Your task to perform on an android device: clear all cookies in the chrome app Image 0: 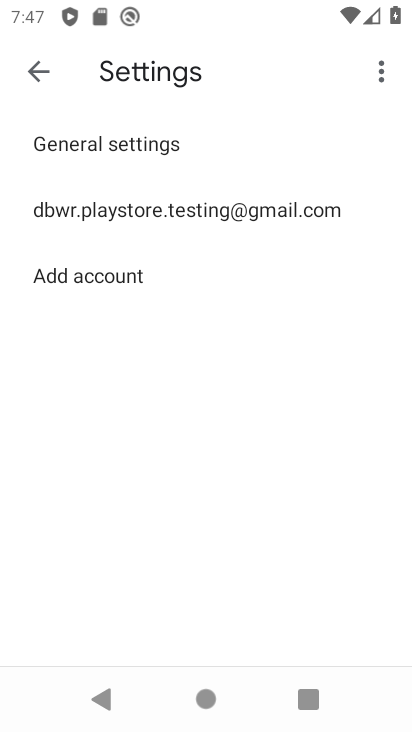
Step 0: click (30, 70)
Your task to perform on an android device: clear all cookies in the chrome app Image 1: 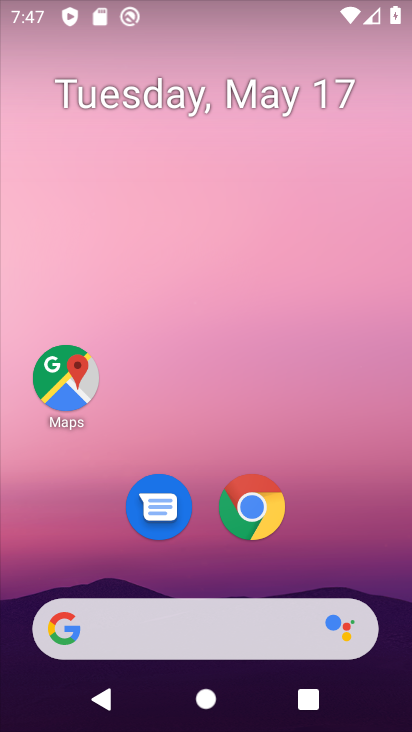
Step 1: drag from (125, 231) to (74, 82)
Your task to perform on an android device: clear all cookies in the chrome app Image 2: 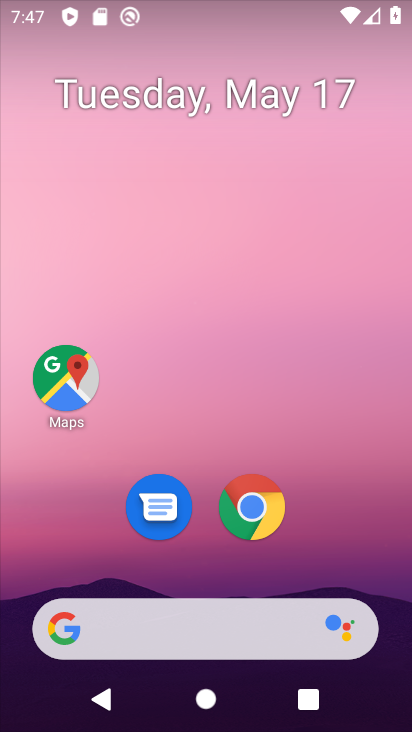
Step 2: drag from (248, 553) to (203, 148)
Your task to perform on an android device: clear all cookies in the chrome app Image 3: 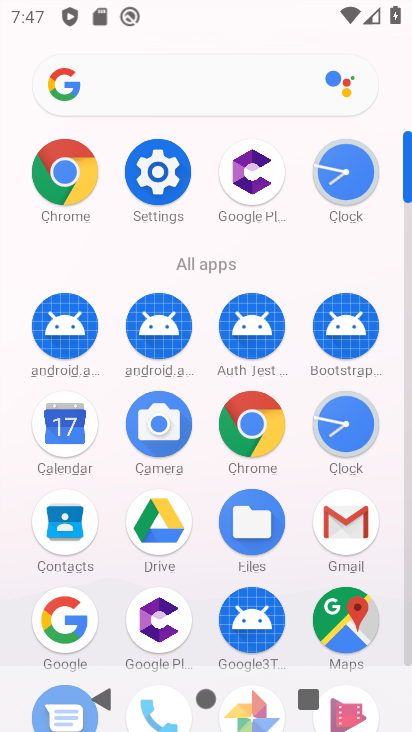
Step 3: click (57, 165)
Your task to perform on an android device: clear all cookies in the chrome app Image 4: 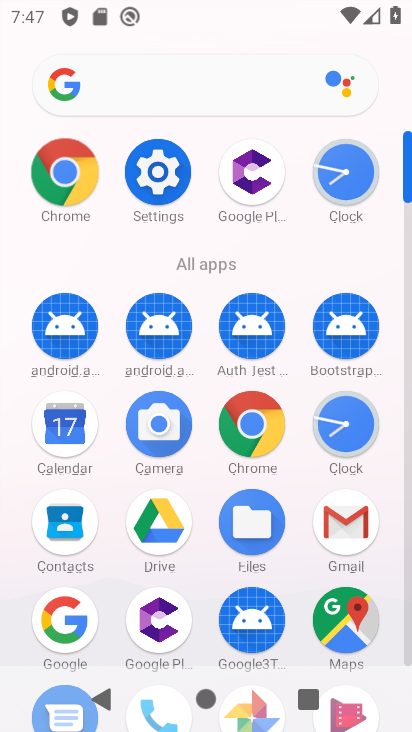
Step 4: click (63, 165)
Your task to perform on an android device: clear all cookies in the chrome app Image 5: 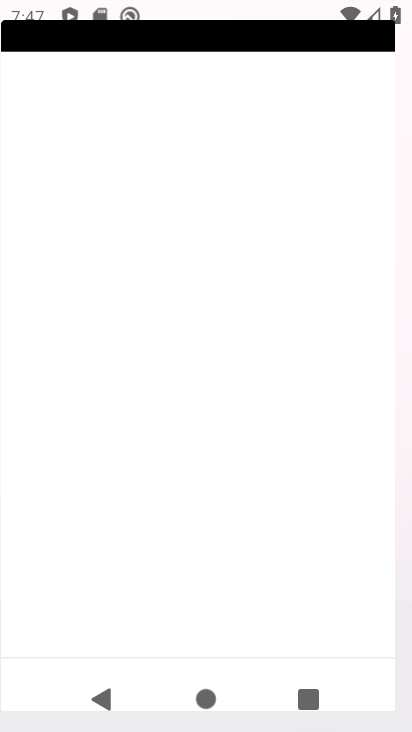
Step 5: click (63, 165)
Your task to perform on an android device: clear all cookies in the chrome app Image 6: 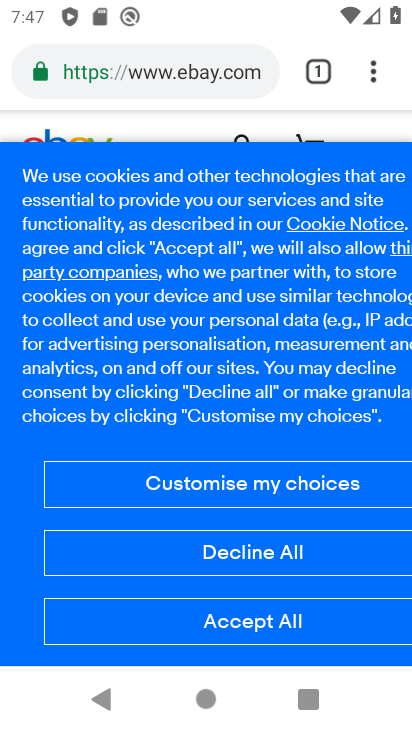
Step 6: drag from (374, 77) to (110, 498)
Your task to perform on an android device: clear all cookies in the chrome app Image 7: 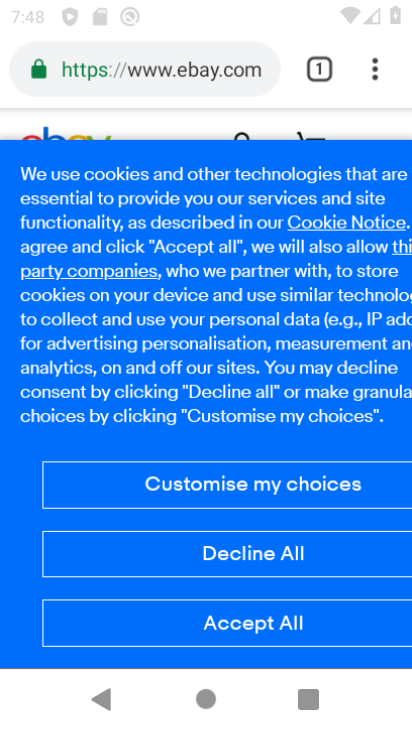
Step 7: click (110, 497)
Your task to perform on an android device: clear all cookies in the chrome app Image 8: 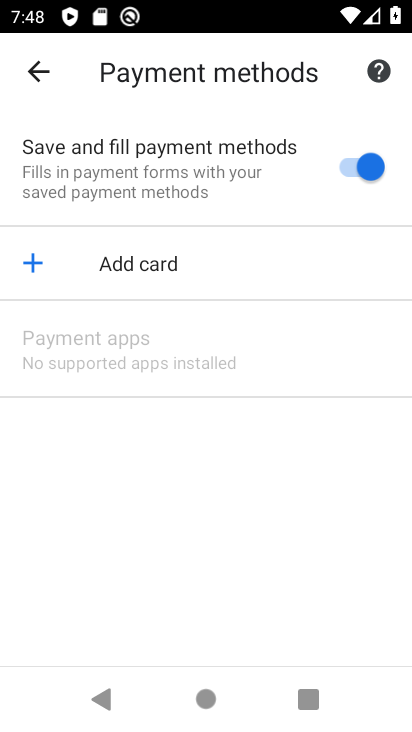
Step 8: click (31, 63)
Your task to perform on an android device: clear all cookies in the chrome app Image 9: 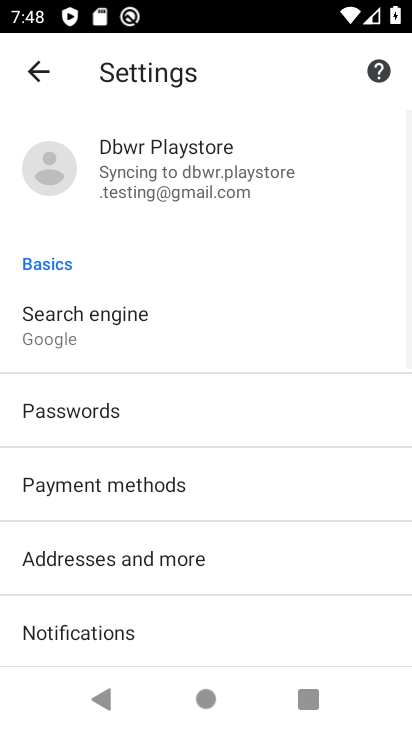
Step 9: drag from (153, 561) to (133, 12)
Your task to perform on an android device: clear all cookies in the chrome app Image 10: 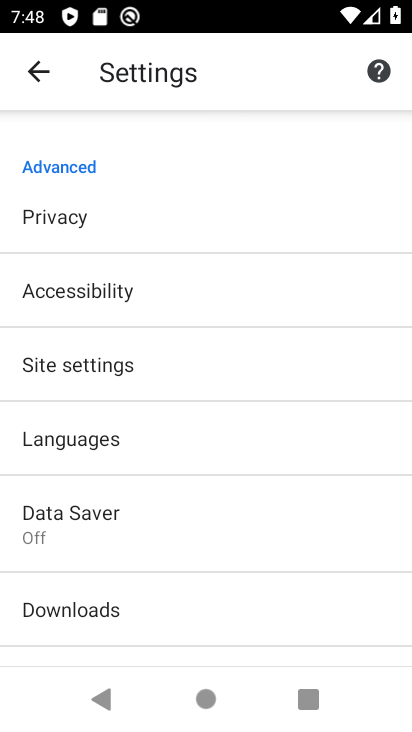
Step 10: click (71, 357)
Your task to perform on an android device: clear all cookies in the chrome app Image 11: 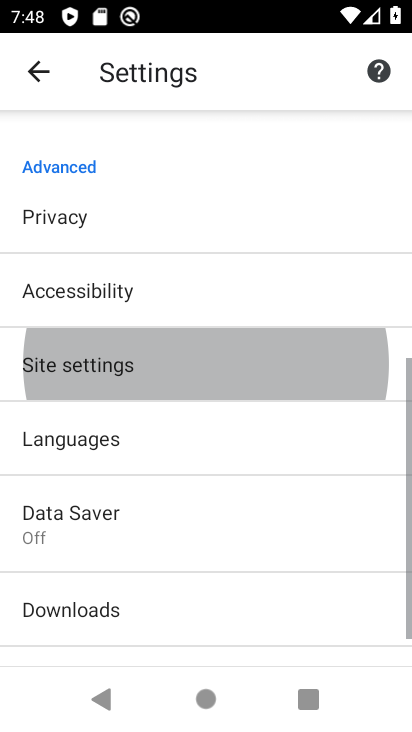
Step 11: click (77, 353)
Your task to perform on an android device: clear all cookies in the chrome app Image 12: 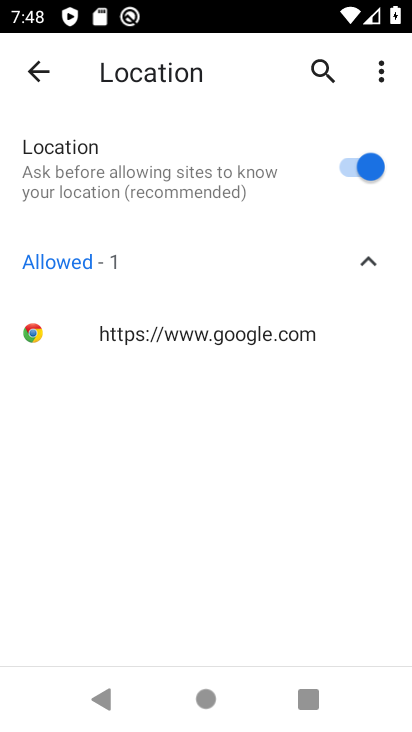
Step 12: click (42, 69)
Your task to perform on an android device: clear all cookies in the chrome app Image 13: 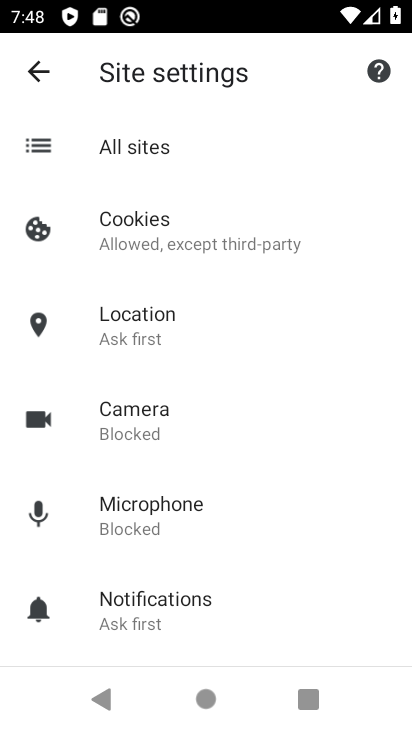
Step 13: click (127, 237)
Your task to perform on an android device: clear all cookies in the chrome app Image 14: 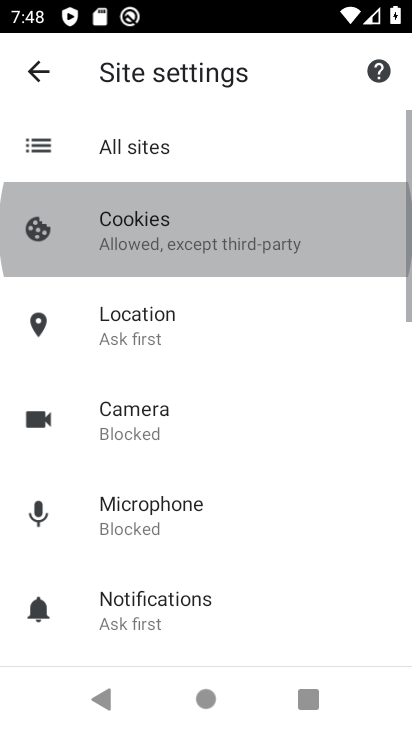
Step 14: click (127, 237)
Your task to perform on an android device: clear all cookies in the chrome app Image 15: 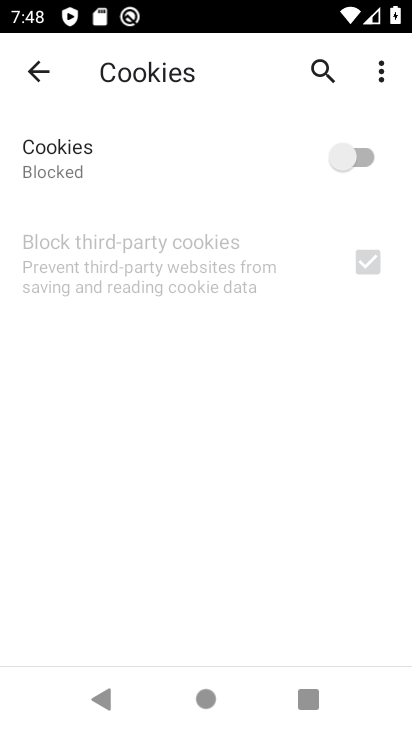
Step 15: click (347, 149)
Your task to perform on an android device: clear all cookies in the chrome app Image 16: 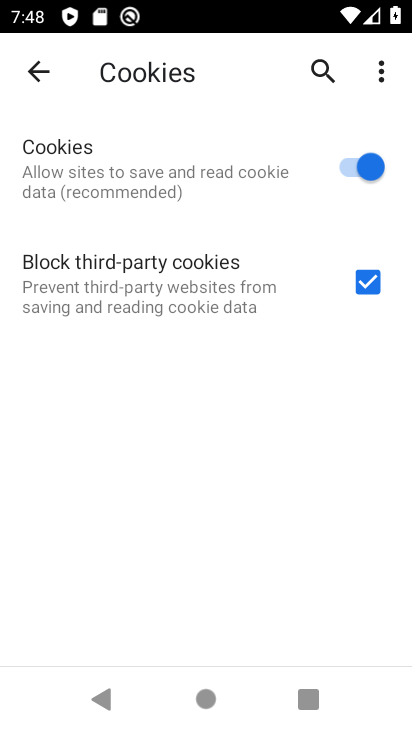
Step 16: task complete